Your task to perform on an android device: open app "Google Duo" Image 0: 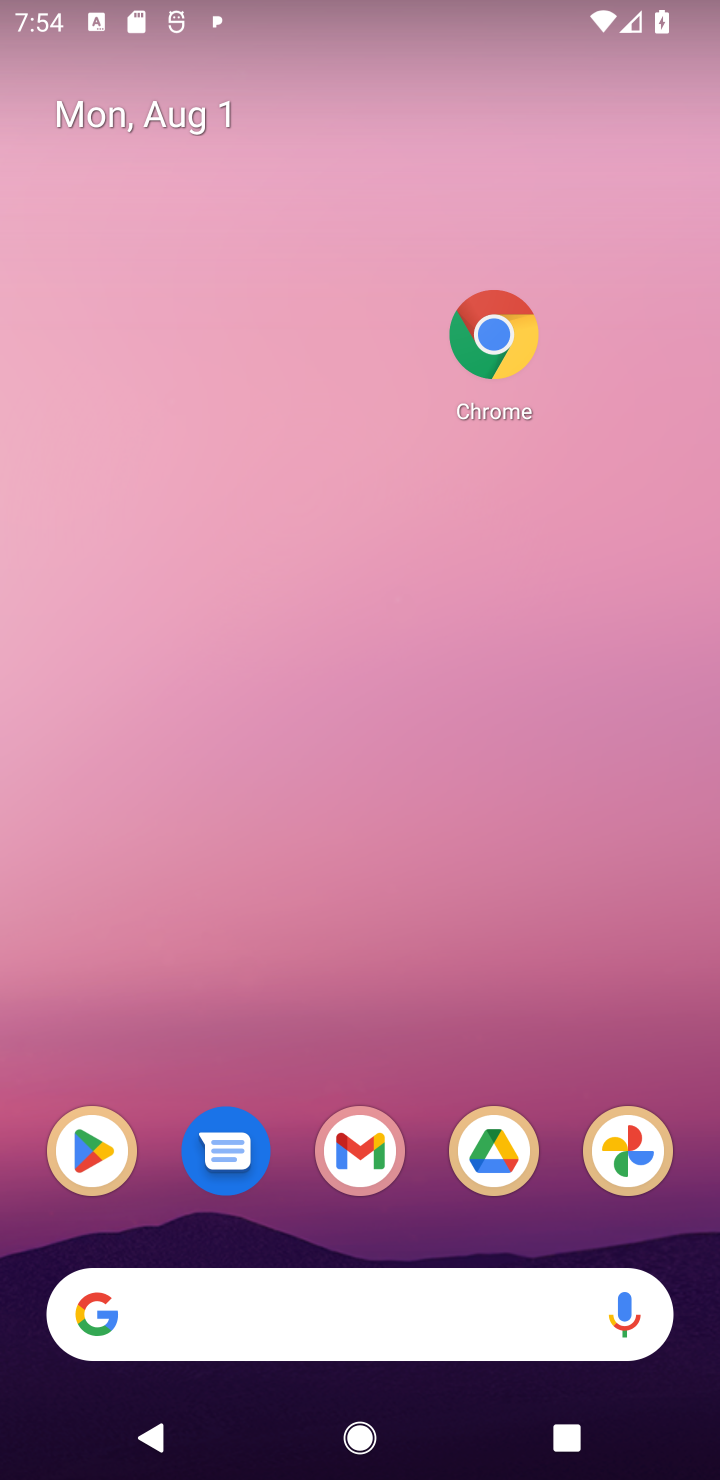
Step 0: click (90, 1165)
Your task to perform on an android device: open app "Google Duo" Image 1: 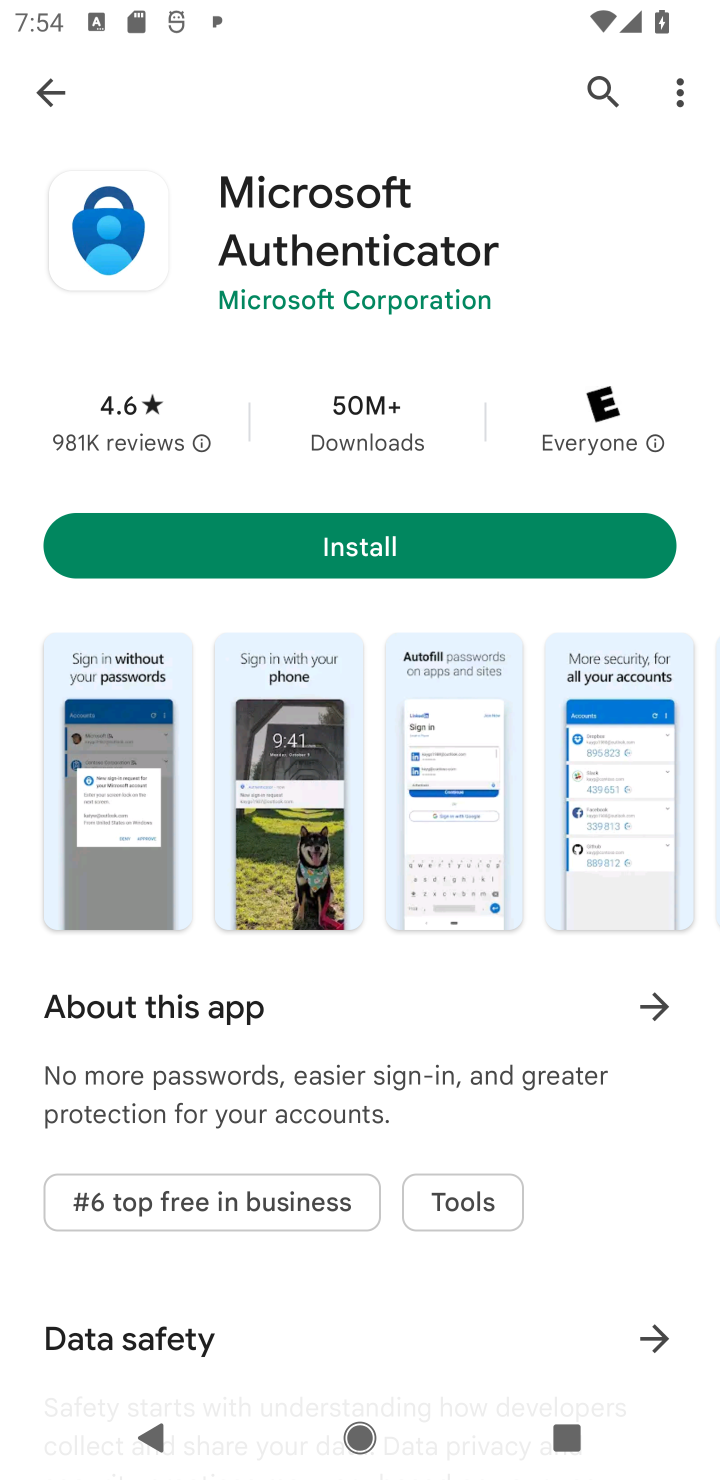
Step 1: click (607, 94)
Your task to perform on an android device: open app "Google Duo" Image 2: 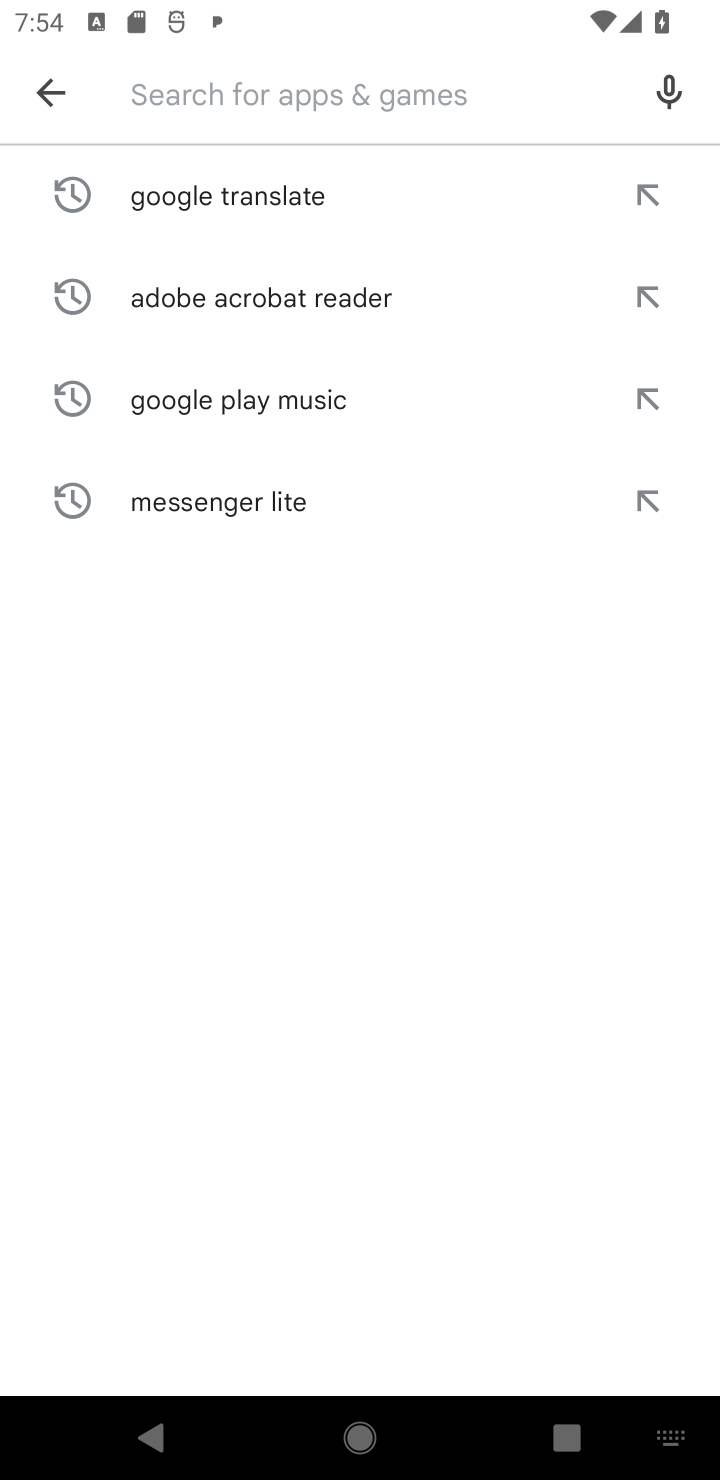
Step 2: type "Google Duo"
Your task to perform on an android device: open app "Google Duo" Image 3: 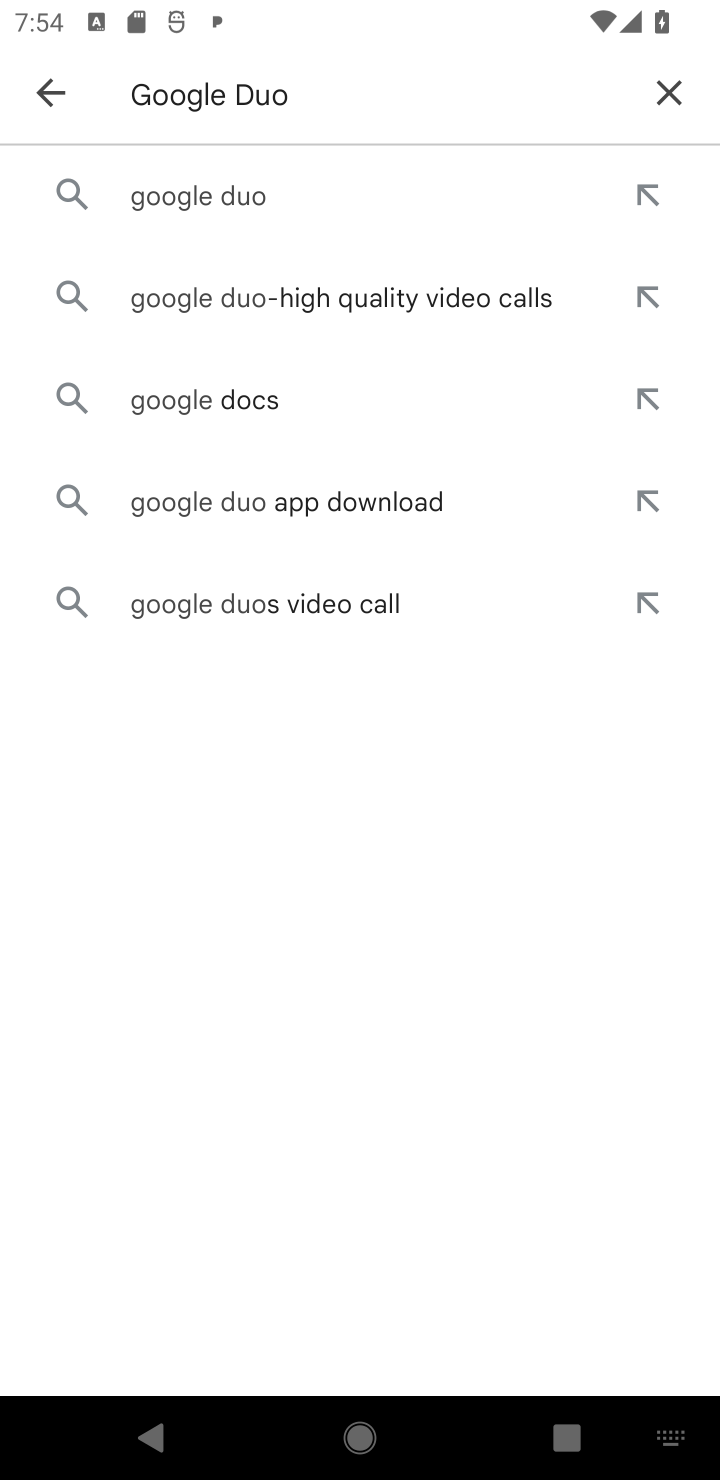
Step 3: click (244, 205)
Your task to perform on an android device: open app "Google Duo" Image 4: 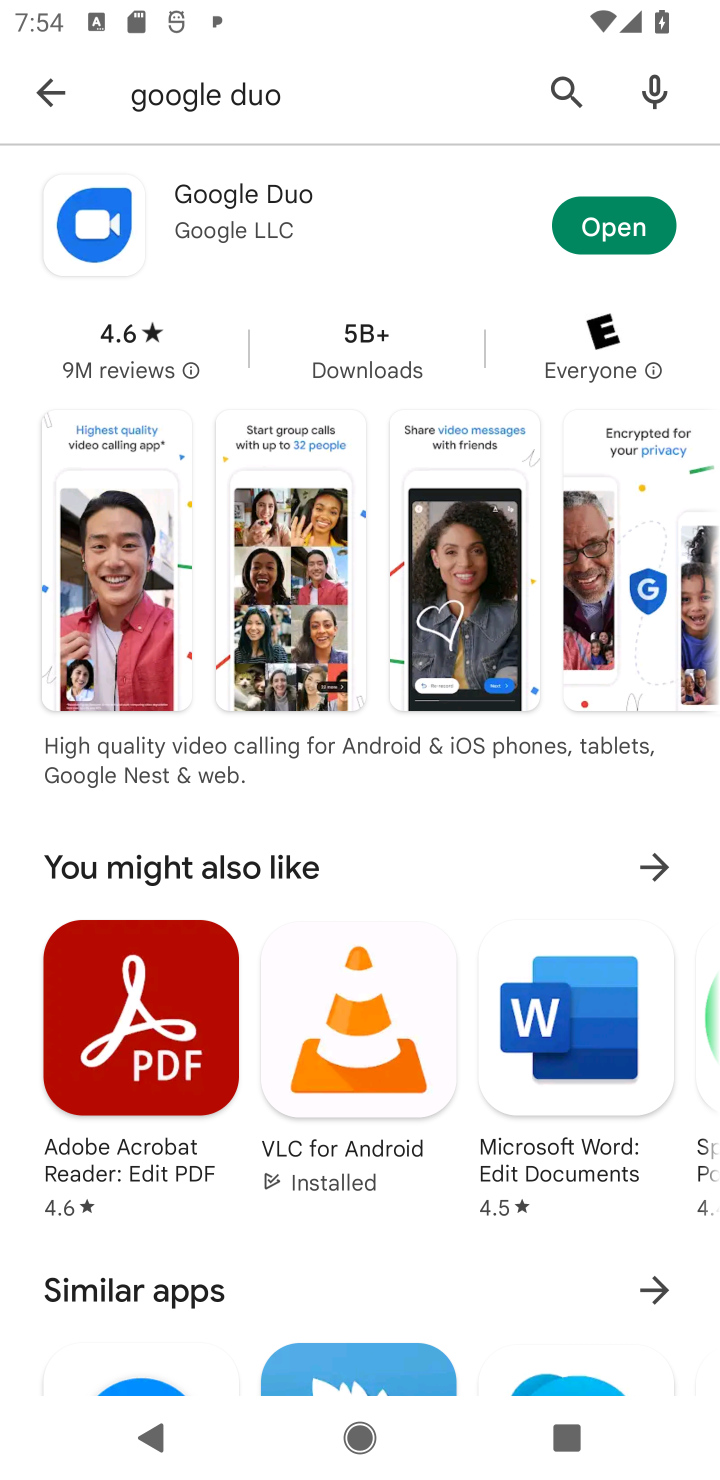
Step 4: click (606, 239)
Your task to perform on an android device: open app "Google Duo" Image 5: 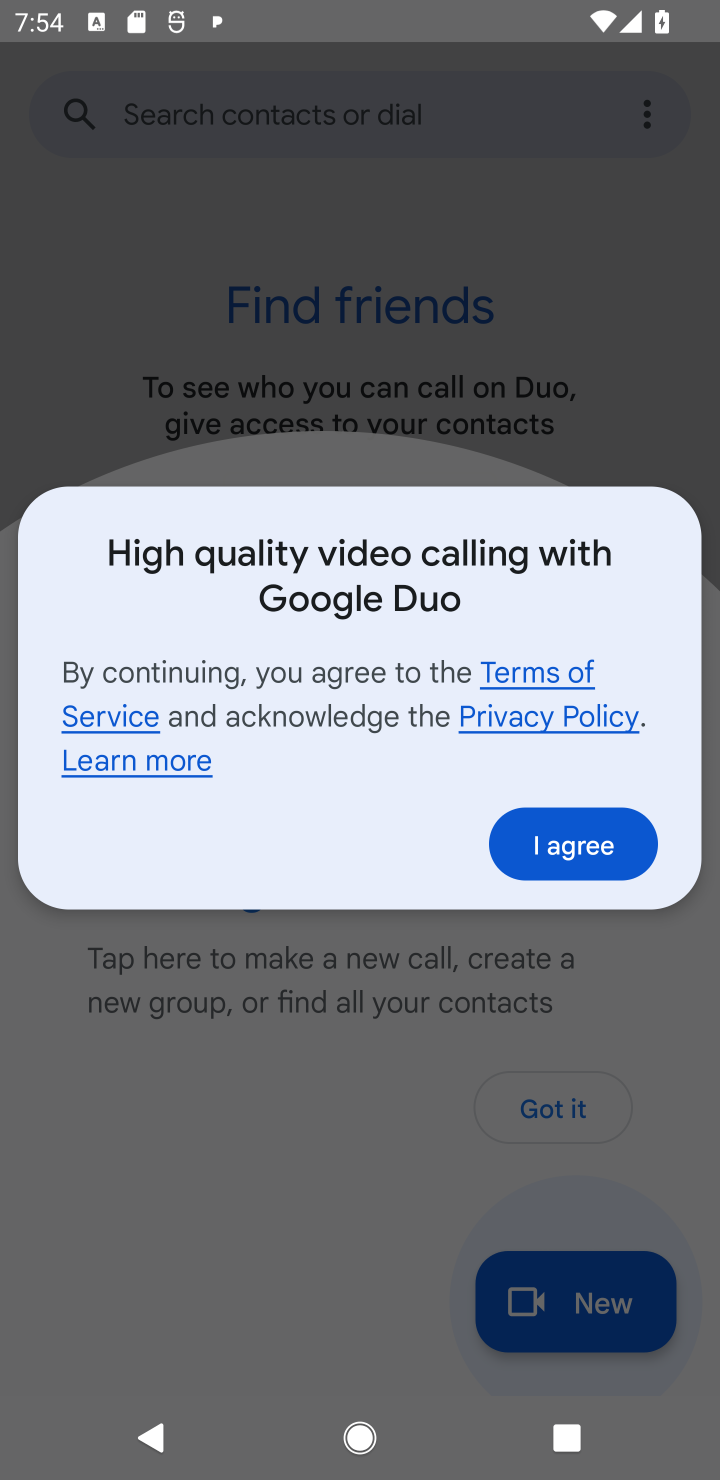
Step 5: task complete